Your task to perform on an android device: What's on my calendar today? Image 0: 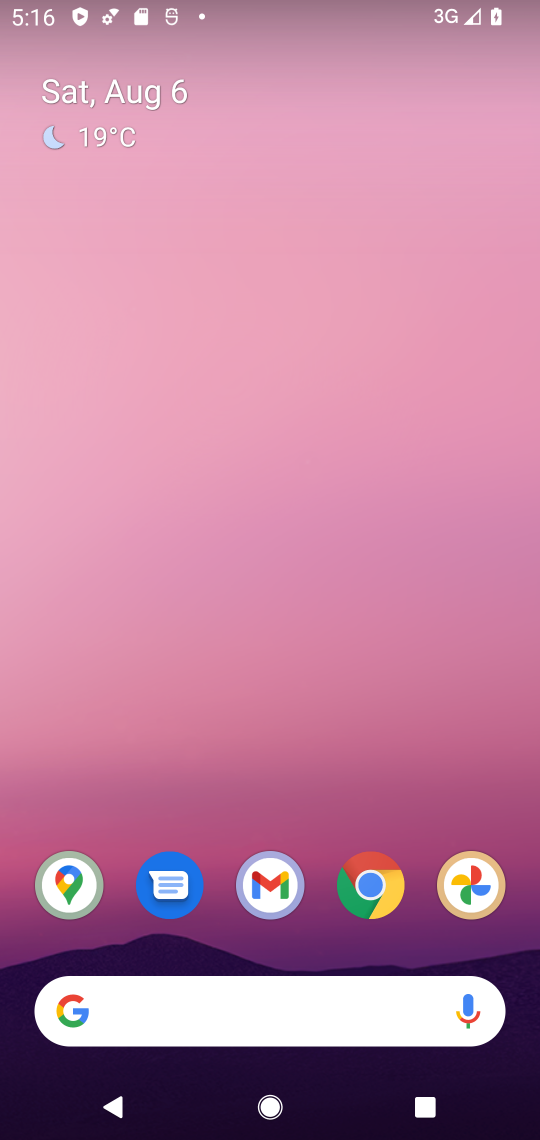
Step 0: drag from (428, 923) to (152, 8)
Your task to perform on an android device: What's on my calendar today? Image 1: 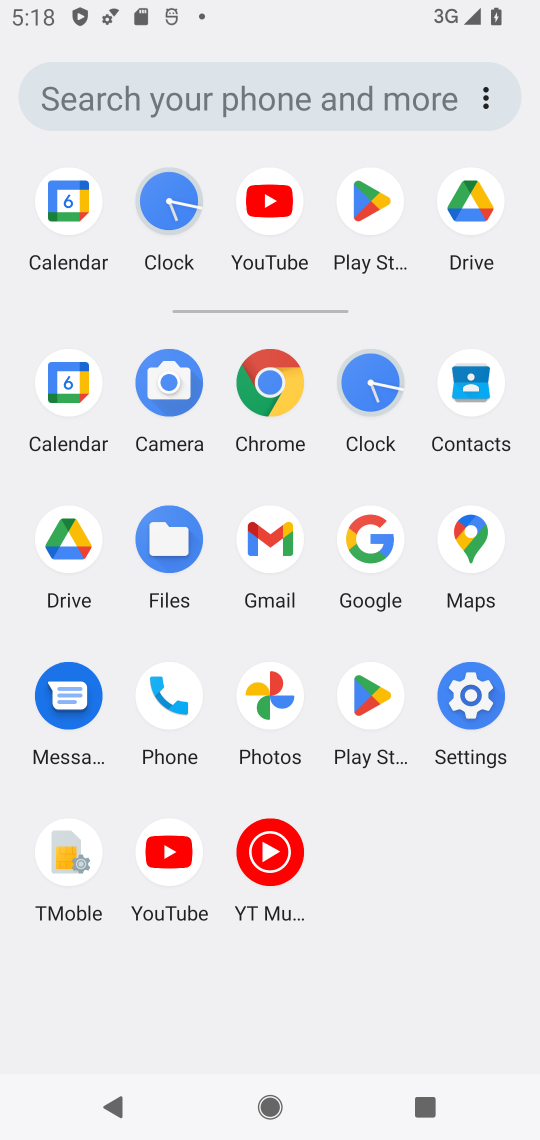
Step 1: click (59, 385)
Your task to perform on an android device: What's on my calendar today? Image 2: 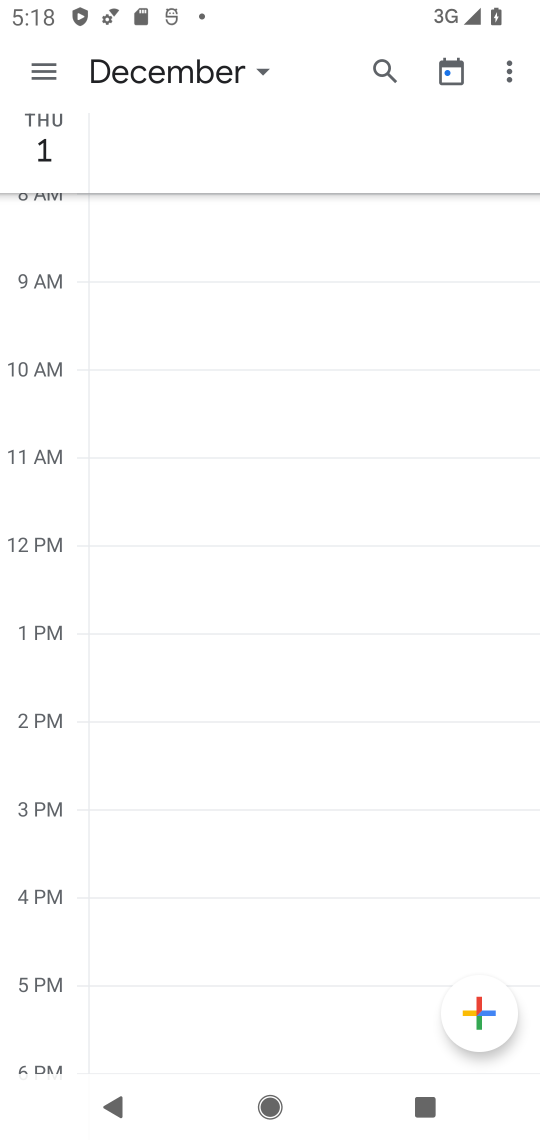
Step 2: task complete